Your task to perform on an android device: What's on my calendar today? Image 0: 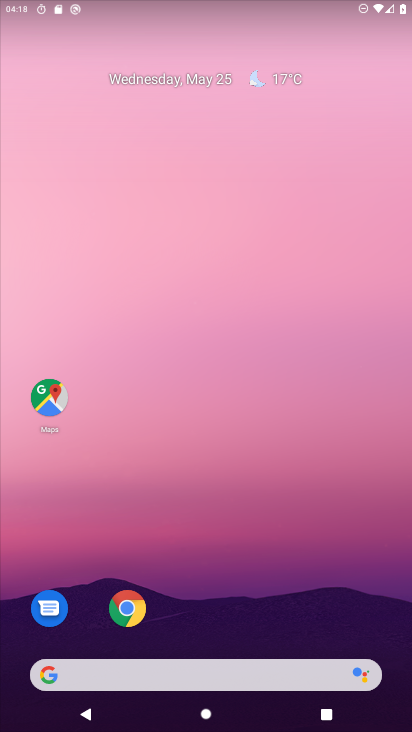
Step 0: drag from (227, 541) to (246, 93)
Your task to perform on an android device: What's on my calendar today? Image 1: 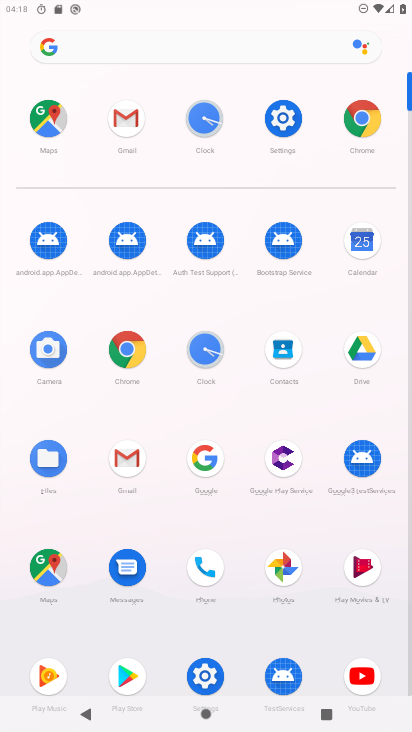
Step 1: click (364, 247)
Your task to perform on an android device: What's on my calendar today? Image 2: 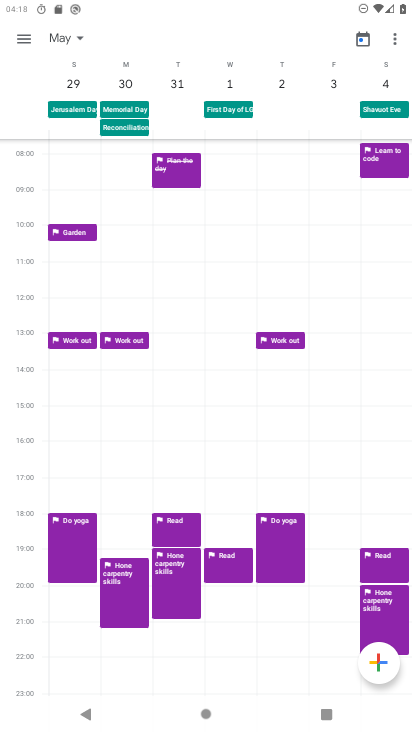
Step 2: task complete